Your task to perform on an android device: View the shopping cart on bestbuy.com. Search for "logitech g903" on bestbuy.com, select the first entry, add it to the cart, then select checkout. Image 0: 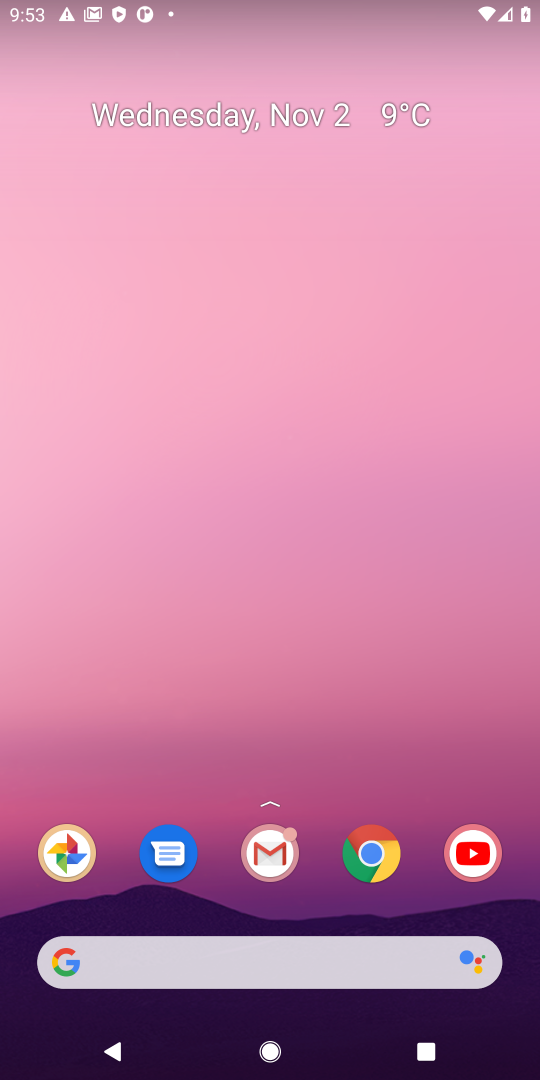
Step 0: click (366, 854)
Your task to perform on an android device: View the shopping cart on bestbuy.com. Search for "logitech g903" on bestbuy.com, select the first entry, add it to the cart, then select checkout. Image 1: 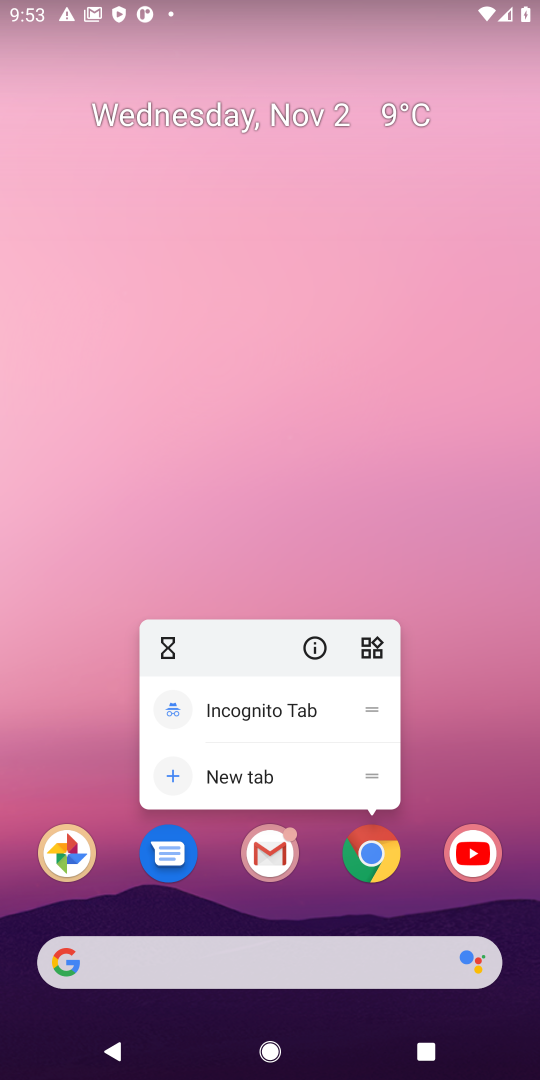
Step 1: click (369, 851)
Your task to perform on an android device: View the shopping cart on bestbuy.com. Search for "logitech g903" on bestbuy.com, select the first entry, add it to the cart, then select checkout. Image 2: 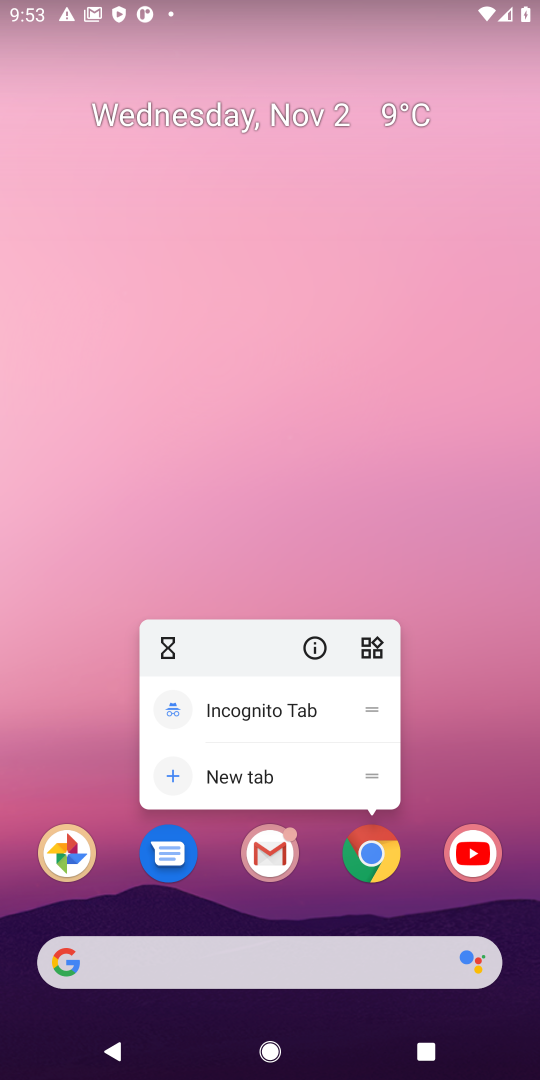
Step 2: click (369, 851)
Your task to perform on an android device: View the shopping cart on bestbuy.com. Search for "logitech g903" on bestbuy.com, select the first entry, add it to the cart, then select checkout. Image 3: 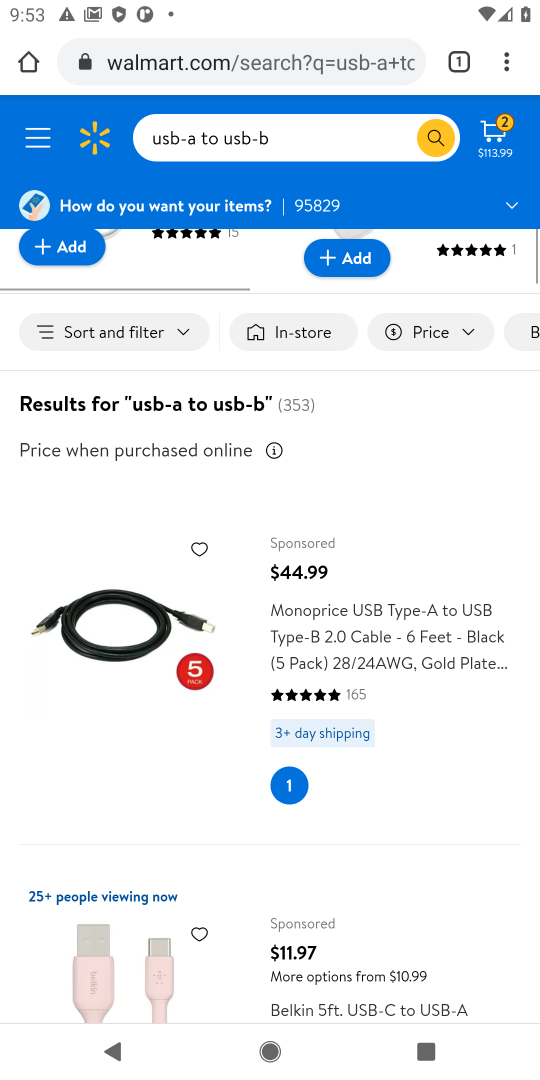
Step 3: click (277, 63)
Your task to perform on an android device: View the shopping cart on bestbuy.com. Search for "logitech g903" on bestbuy.com, select the first entry, add it to the cart, then select checkout. Image 4: 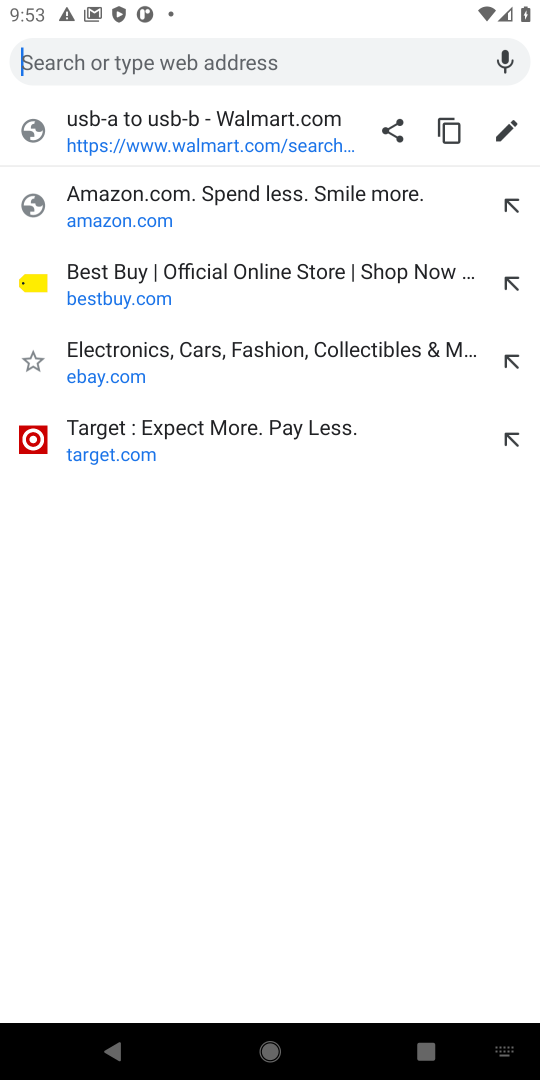
Step 4: click (100, 294)
Your task to perform on an android device: View the shopping cart on bestbuy.com. Search for "logitech g903" on bestbuy.com, select the first entry, add it to the cart, then select checkout. Image 5: 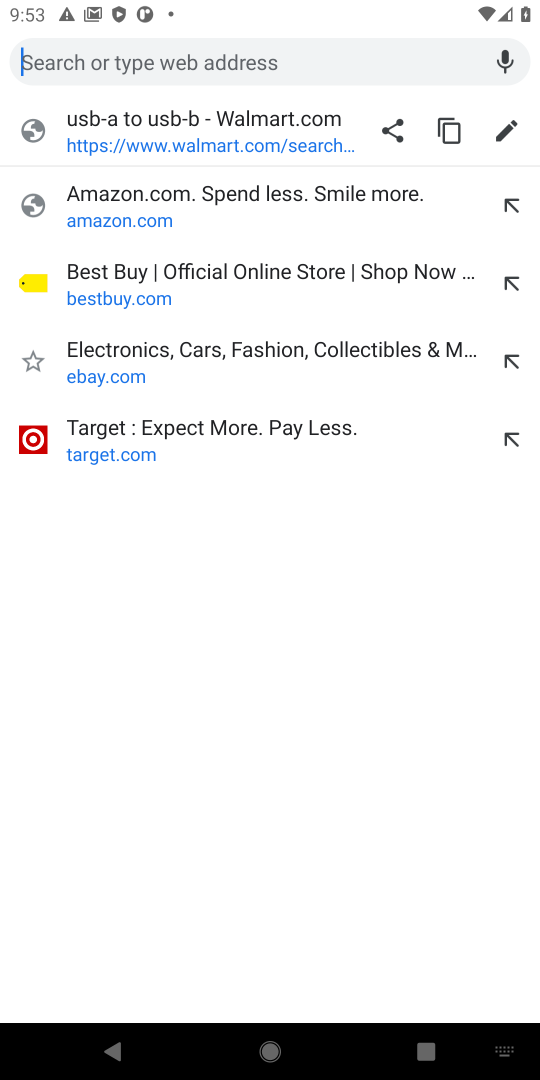
Step 5: click (106, 290)
Your task to perform on an android device: View the shopping cart on bestbuy.com. Search for "logitech g903" on bestbuy.com, select the first entry, add it to the cart, then select checkout. Image 6: 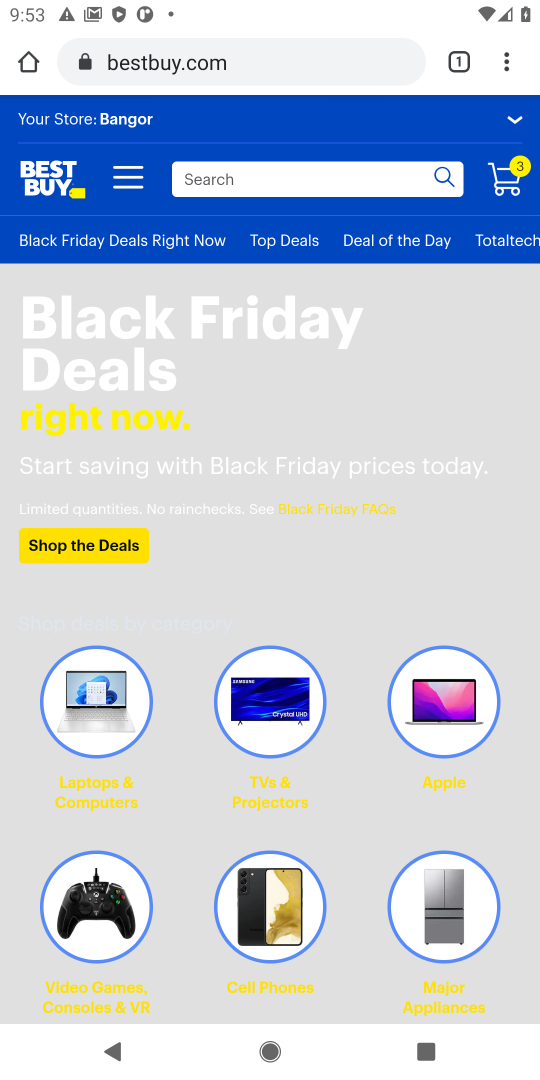
Step 6: click (348, 181)
Your task to perform on an android device: View the shopping cart on bestbuy.com. Search for "logitech g903" on bestbuy.com, select the first entry, add it to the cart, then select checkout. Image 7: 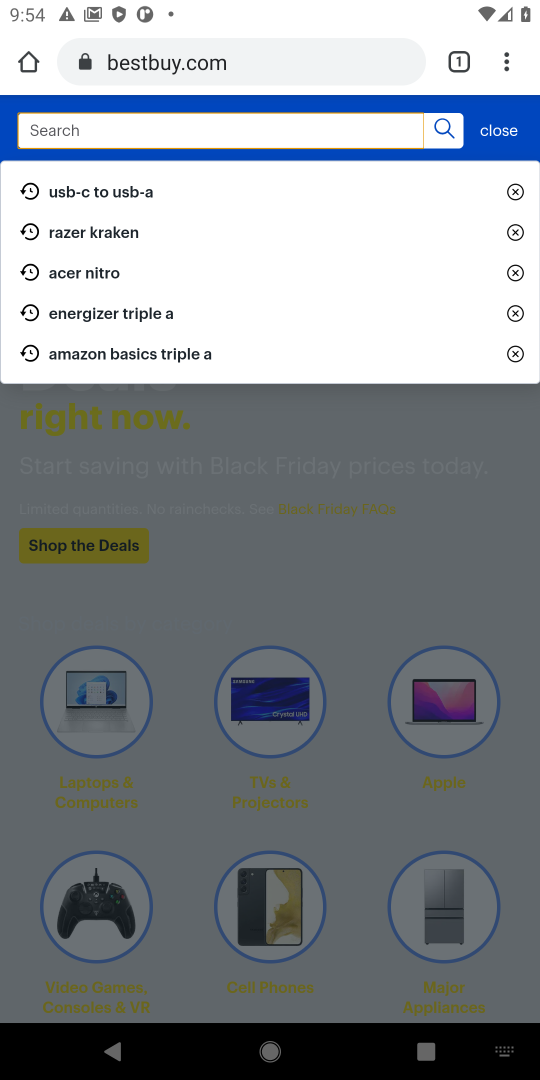
Step 7: type "logitech g903"
Your task to perform on an android device: View the shopping cart on bestbuy.com. Search for "logitech g903" on bestbuy.com, select the first entry, add it to the cart, then select checkout. Image 8: 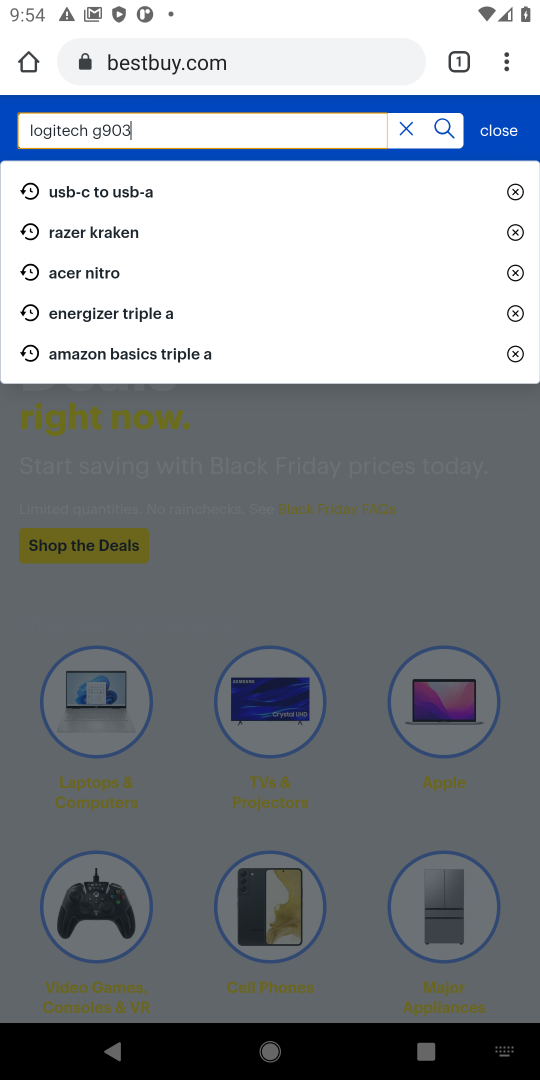
Step 8: press enter
Your task to perform on an android device: View the shopping cart on bestbuy.com. Search for "logitech g903" on bestbuy.com, select the first entry, add it to the cart, then select checkout. Image 9: 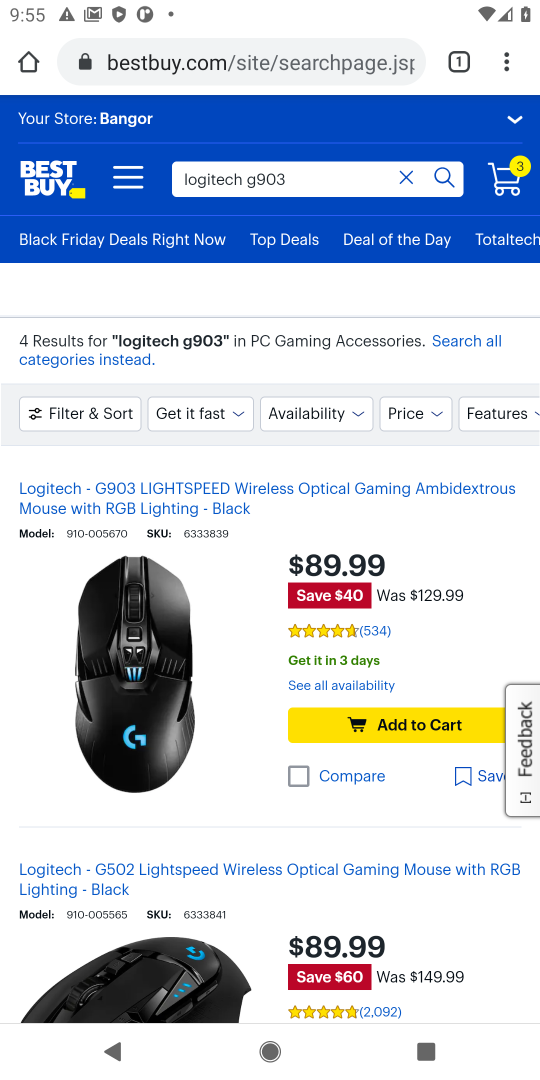
Step 9: click (407, 721)
Your task to perform on an android device: View the shopping cart on bestbuy.com. Search for "logitech g903" on bestbuy.com, select the first entry, add it to the cart, then select checkout. Image 10: 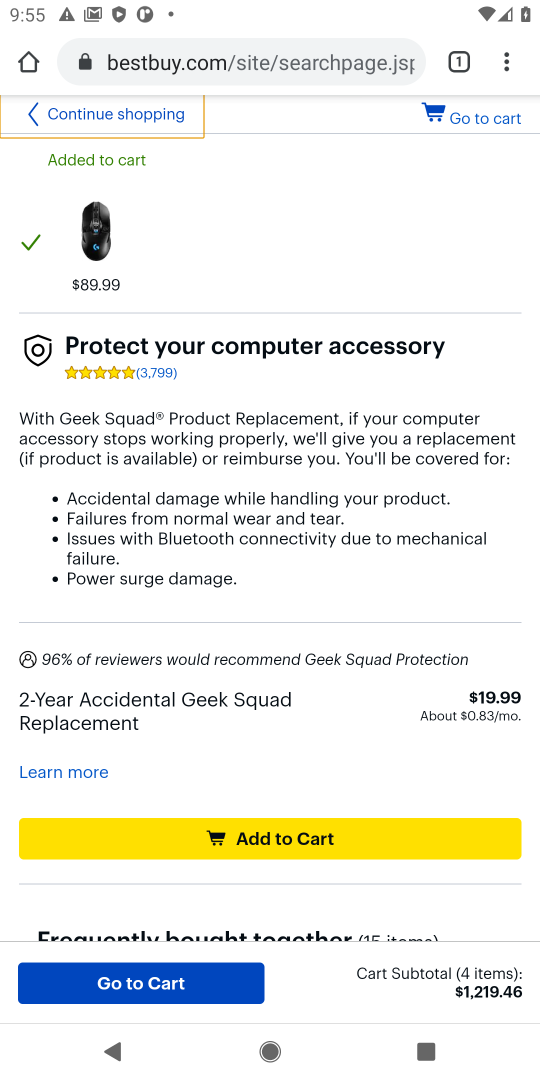
Step 10: click (271, 838)
Your task to perform on an android device: View the shopping cart on bestbuy.com. Search for "logitech g903" on bestbuy.com, select the first entry, add it to the cart, then select checkout. Image 11: 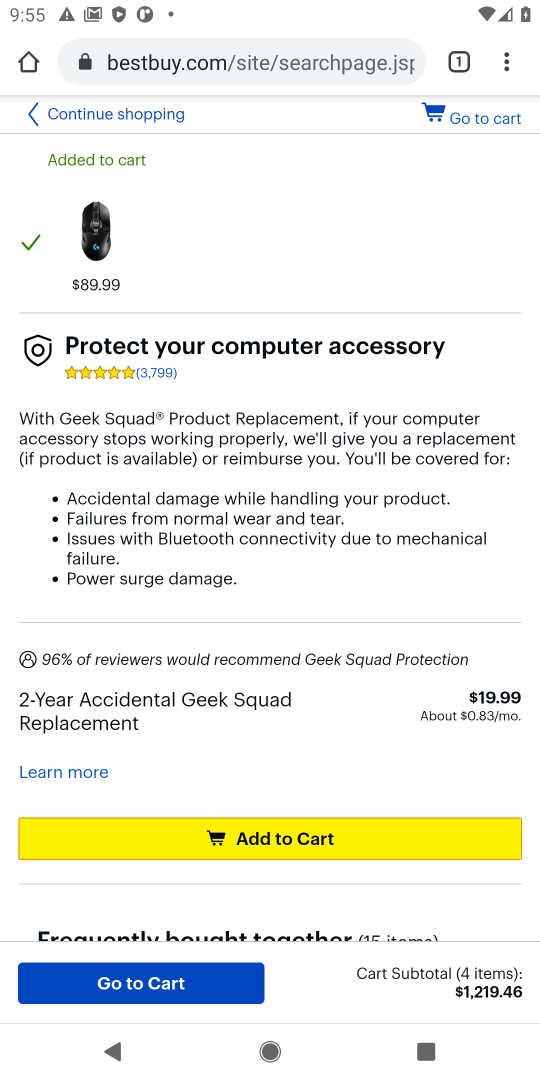
Step 11: click (319, 840)
Your task to perform on an android device: View the shopping cart on bestbuy.com. Search for "logitech g903" on bestbuy.com, select the first entry, add it to the cart, then select checkout. Image 12: 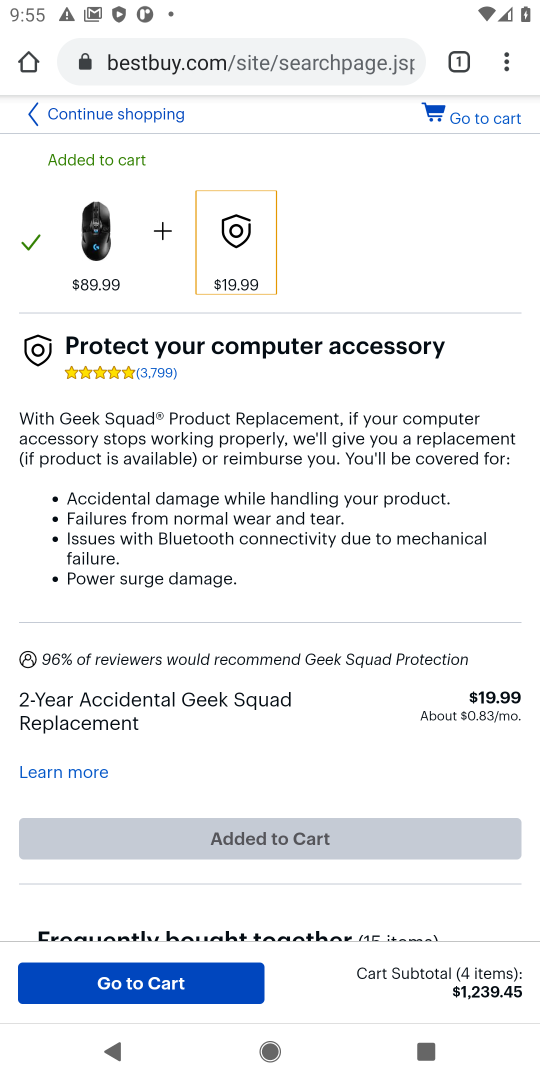
Step 12: click (460, 116)
Your task to perform on an android device: View the shopping cart on bestbuy.com. Search for "logitech g903" on bestbuy.com, select the first entry, add it to the cart, then select checkout. Image 13: 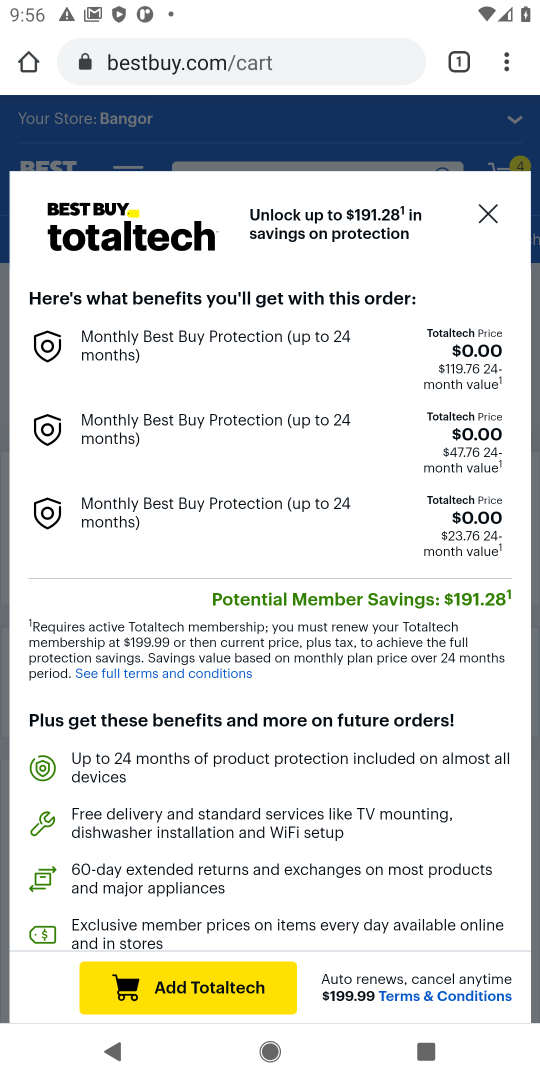
Step 13: click (487, 210)
Your task to perform on an android device: View the shopping cart on bestbuy.com. Search for "logitech g903" on bestbuy.com, select the first entry, add it to the cart, then select checkout. Image 14: 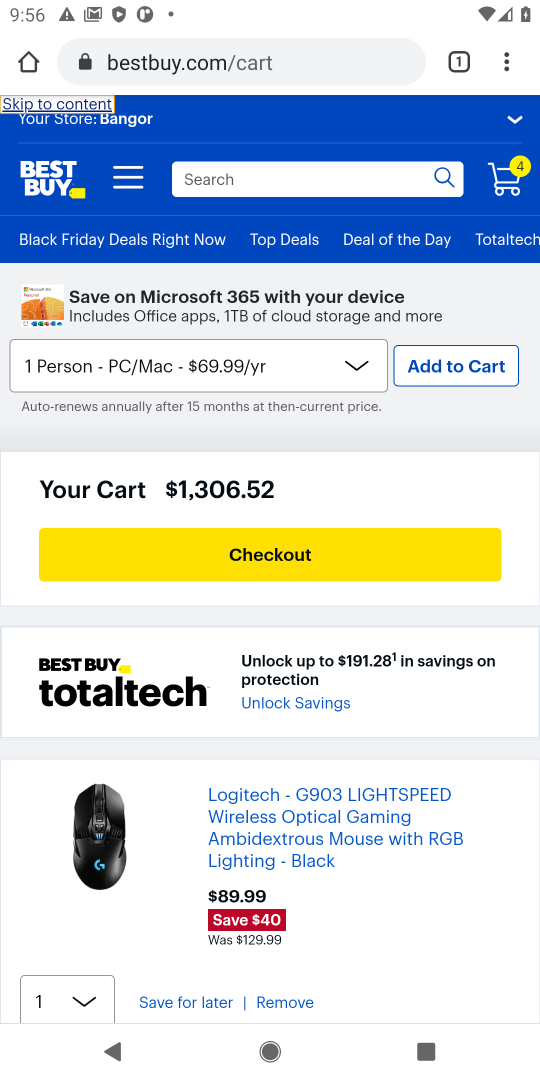
Step 14: drag from (99, 825) to (230, 572)
Your task to perform on an android device: View the shopping cart on bestbuy.com. Search for "logitech g903" on bestbuy.com, select the first entry, add it to the cart, then select checkout. Image 15: 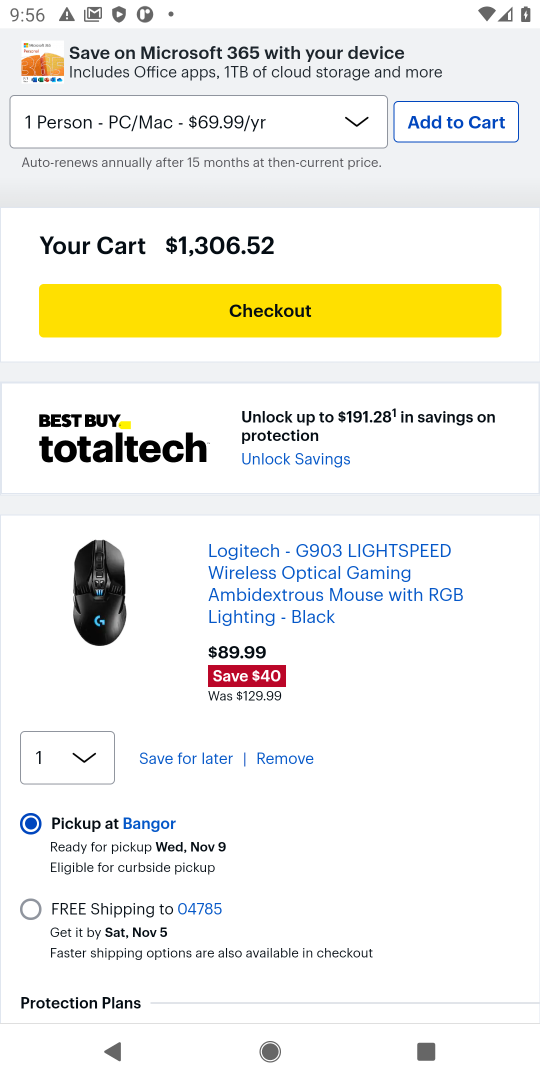
Step 15: click (276, 309)
Your task to perform on an android device: View the shopping cart on bestbuy.com. Search for "logitech g903" on bestbuy.com, select the first entry, add it to the cart, then select checkout. Image 16: 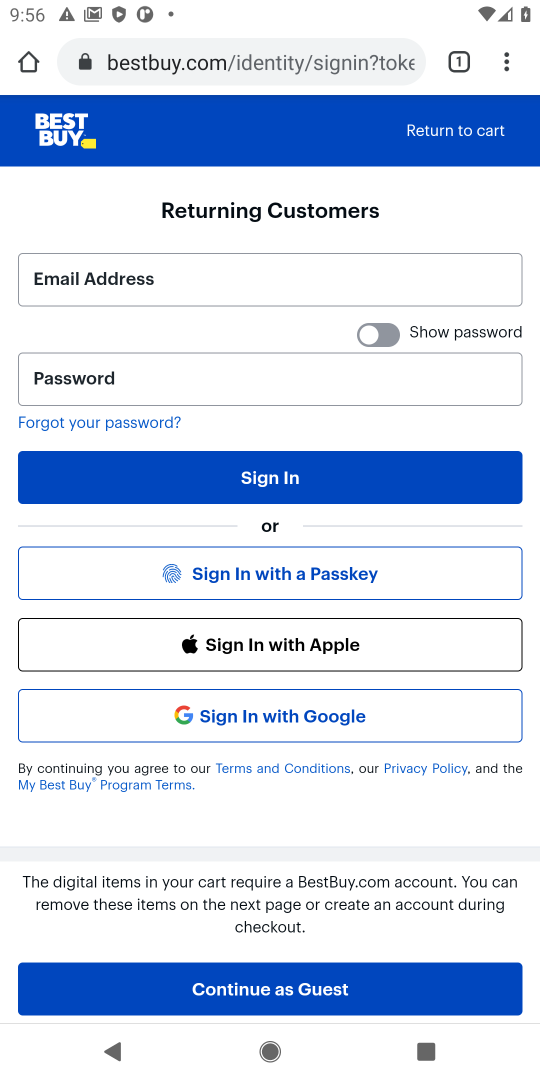
Step 16: task complete